Your task to perform on an android device: Open calendar and show me the second week of next month Image 0: 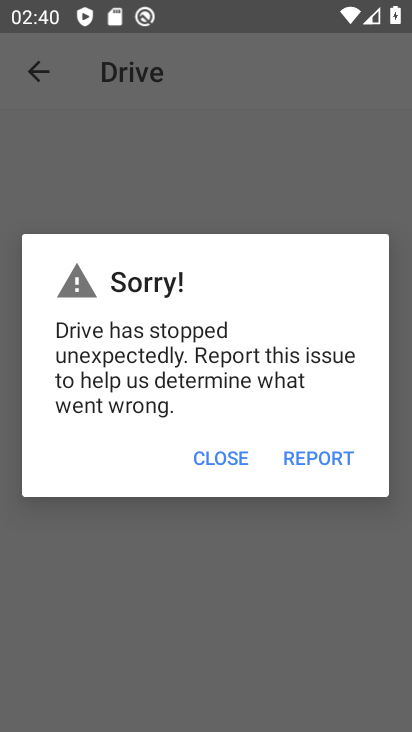
Step 0: press home button
Your task to perform on an android device: Open calendar and show me the second week of next month Image 1: 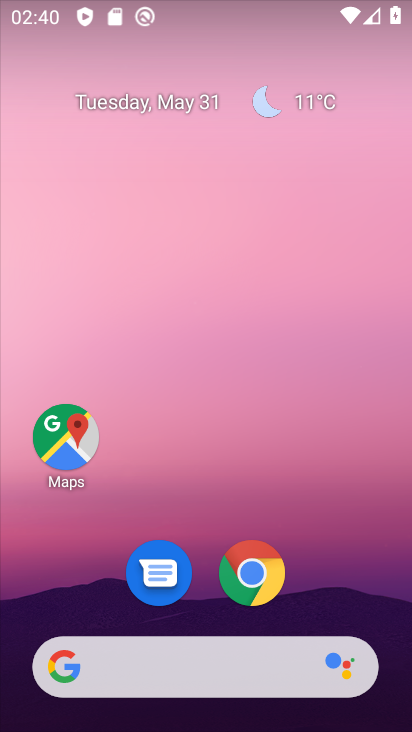
Step 1: drag from (359, 584) to (253, 271)
Your task to perform on an android device: Open calendar and show me the second week of next month Image 2: 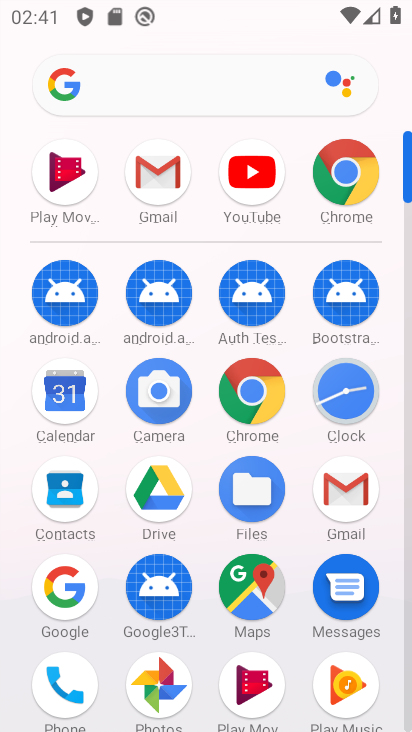
Step 2: click (49, 438)
Your task to perform on an android device: Open calendar and show me the second week of next month Image 3: 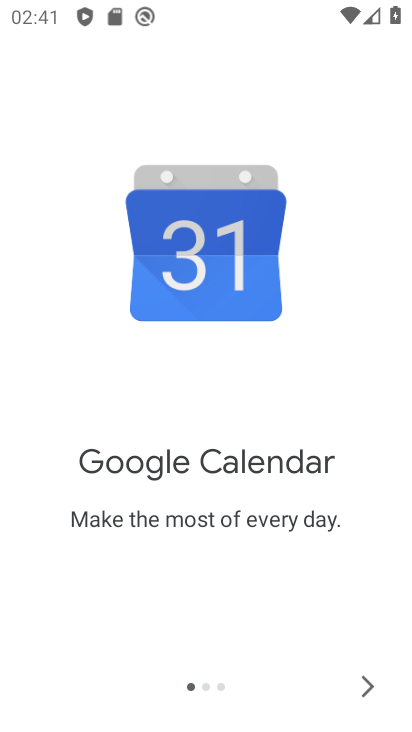
Step 3: click (360, 686)
Your task to perform on an android device: Open calendar and show me the second week of next month Image 4: 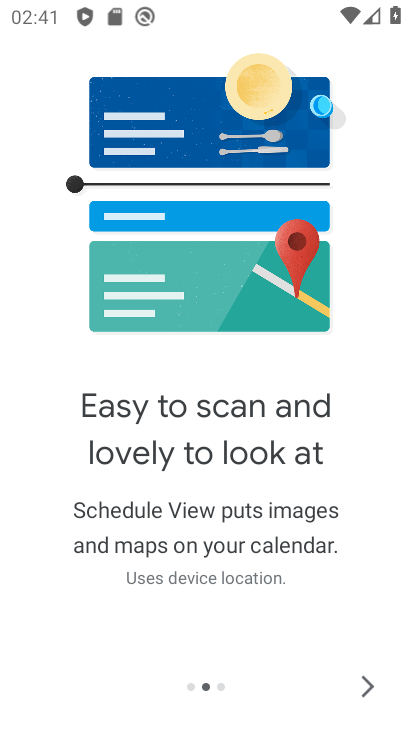
Step 4: click (360, 686)
Your task to perform on an android device: Open calendar and show me the second week of next month Image 5: 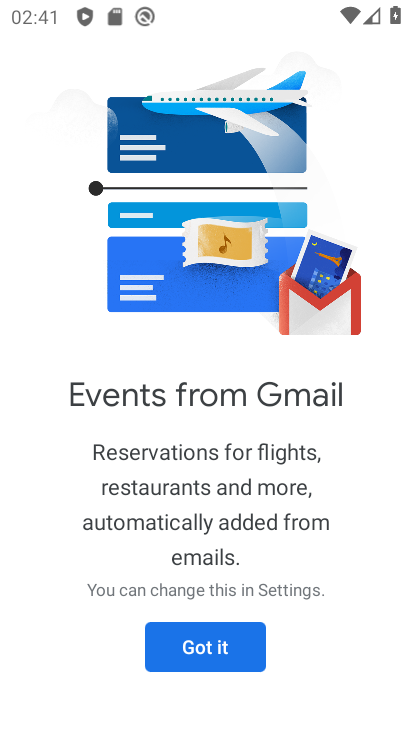
Step 5: click (360, 686)
Your task to perform on an android device: Open calendar and show me the second week of next month Image 6: 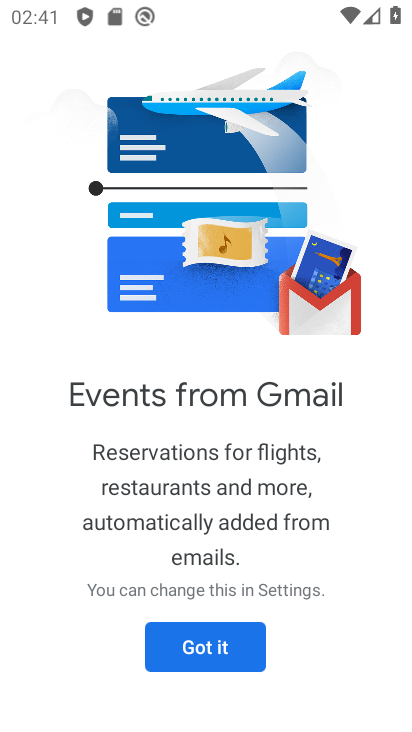
Step 6: click (210, 633)
Your task to perform on an android device: Open calendar and show me the second week of next month Image 7: 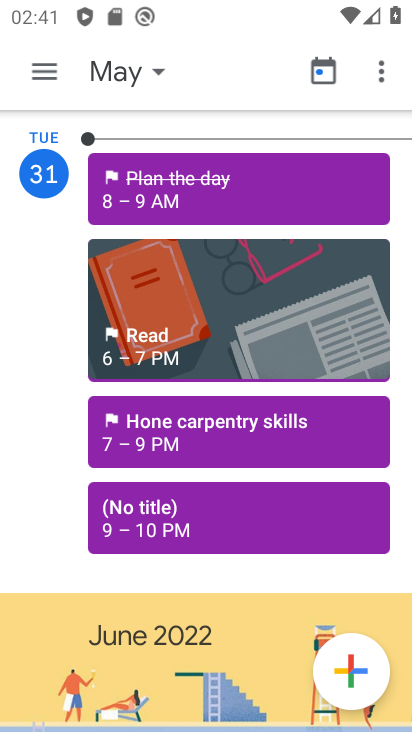
Step 7: click (144, 70)
Your task to perform on an android device: Open calendar and show me the second week of next month Image 8: 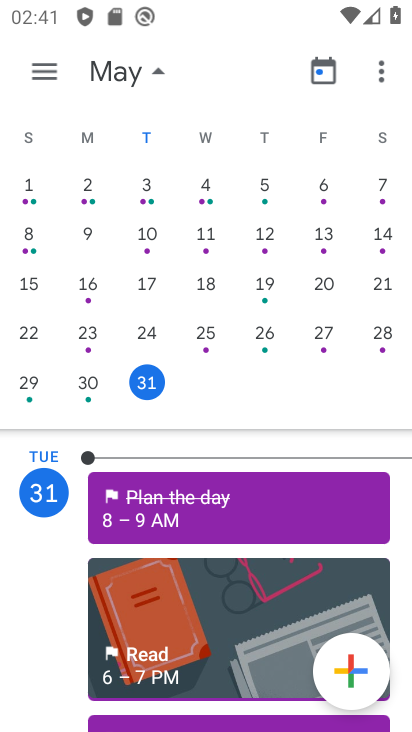
Step 8: click (38, 63)
Your task to perform on an android device: Open calendar and show me the second week of next month Image 9: 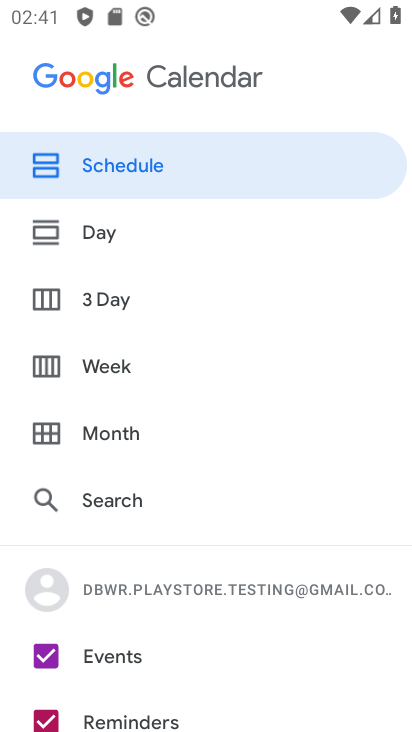
Step 9: click (105, 372)
Your task to perform on an android device: Open calendar and show me the second week of next month Image 10: 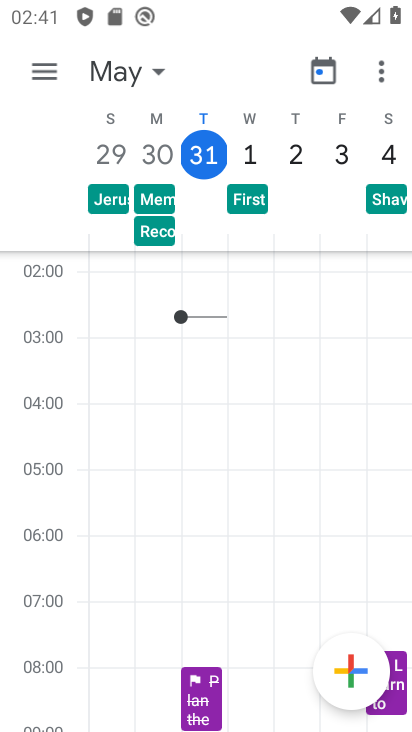
Step 10: click (147, 71)
Your task to perform on an android device: Open calendar and show me the second week of next month Image 11: 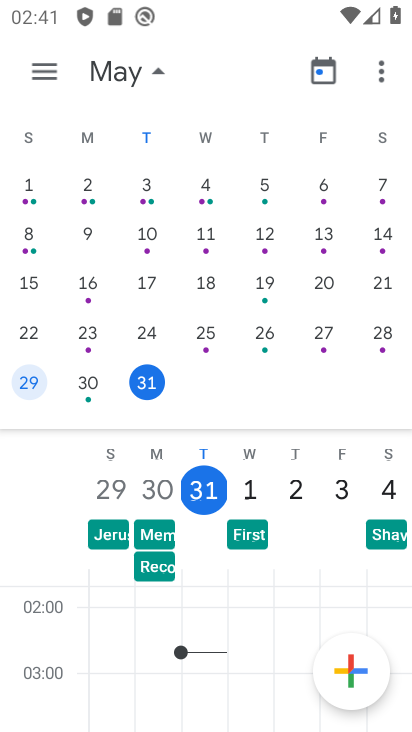
Step 11: drag from (389, 271) to (2, 262)
Your task to perform on an android device: Open calendar and show me the second week of next month Image 12: 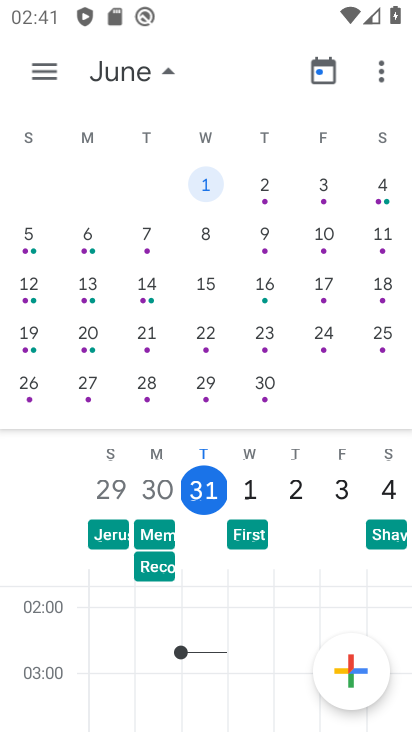
Step 12: click (205, 235)
Your task to perform on an android device: Open calendar and show me the second week of next month Image 13: 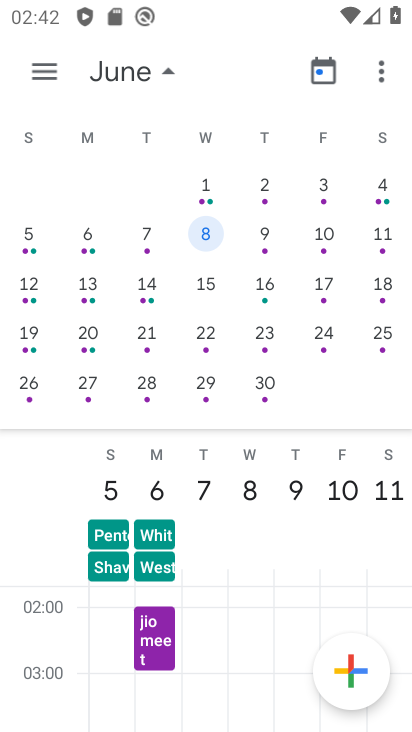
Step 13: task complete